Your task to perform on an android device: open a new tab in the chrome app Image 0: 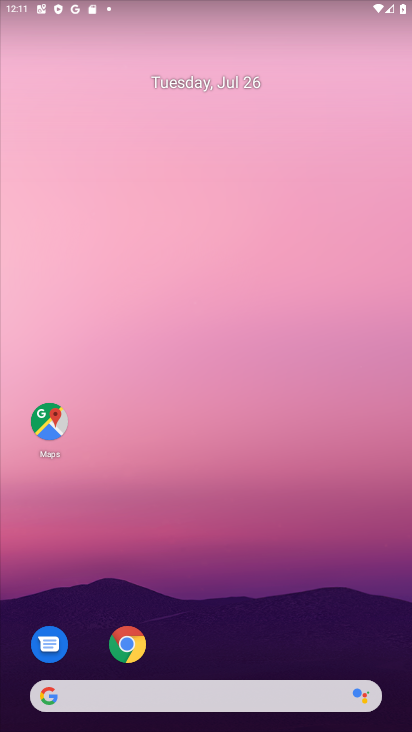
Step 0: click (130, 647)
Your task to perform on an android device: open a new tab in the chrome app Image 1: 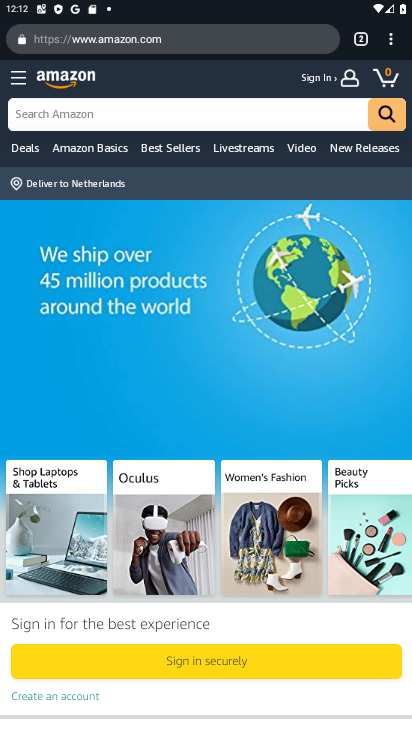
Step 1: click (394, 40)
Your task to perform on an android device: open a new tab in the chrome app Image 2: 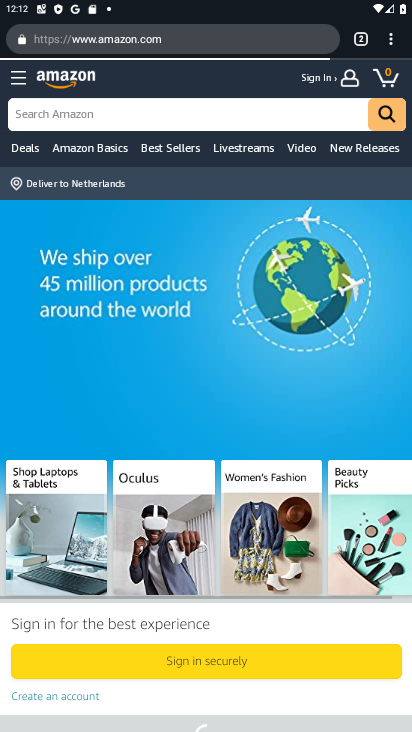
Step 2: task complete